Your task to perform on an android device: Show me the alarms in the clock app Image 0: 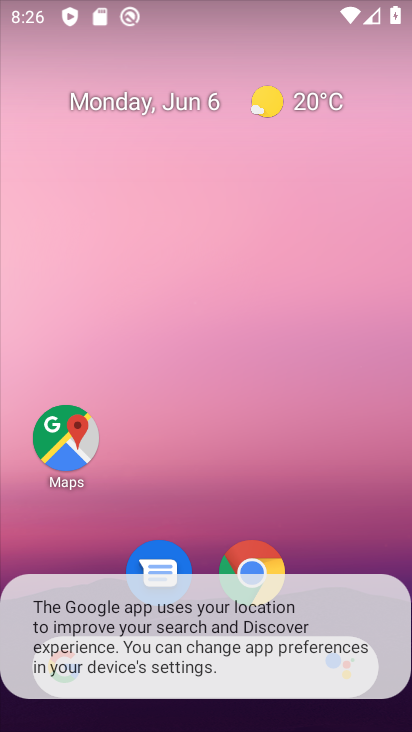
Step 0: drag from (315, 718) to (155, 136)
Your task to perform on an android device: Show me the alarms in the clock app Image 1: 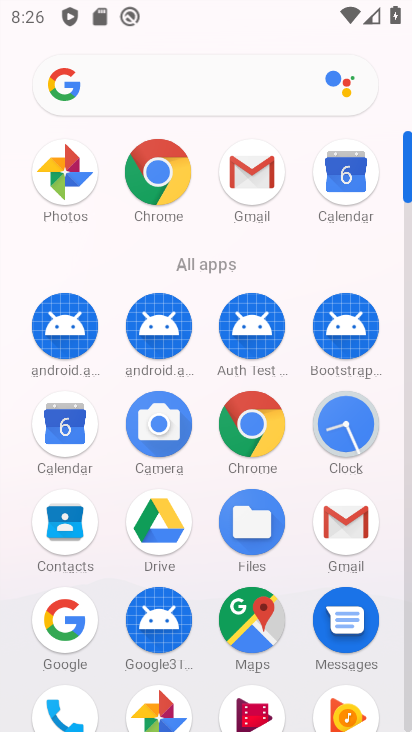
Step 1: click (345, 418)
Your task to perform on an android device: Show me the alarms in the clock app Image 2: 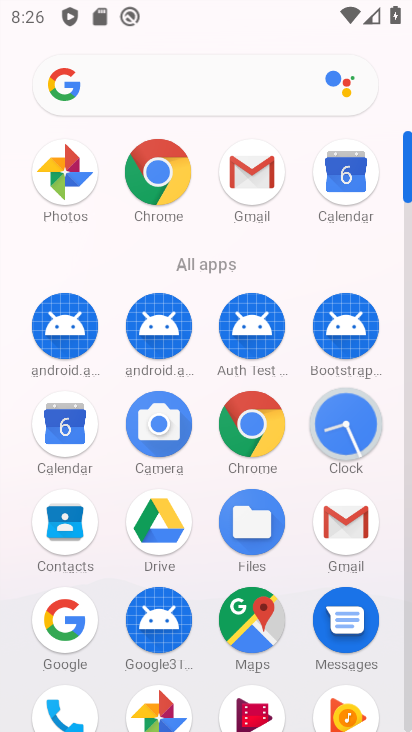
Step 2: click (345, 418)
Your task to perform on an android device: Show me the alarms in the clock app Image 3: 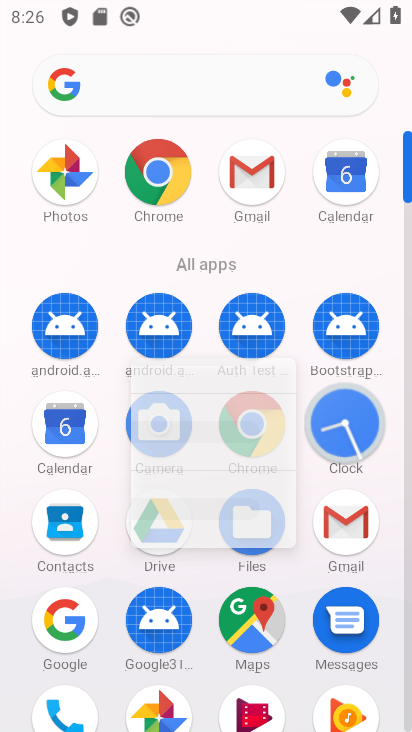
Step 3: click (344, 420)
Your task to perform on an android device: Show me the alarms in the clock app Image 4: 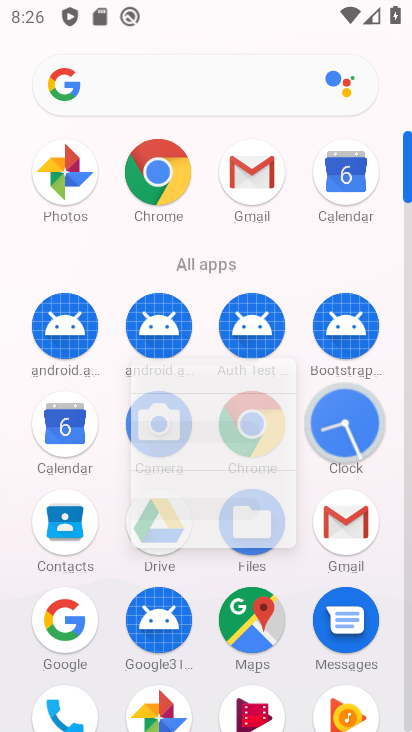
Step 4: click (343, 420)
Your task to perform on an android device: Show me the alarms in the clock app Image 5: 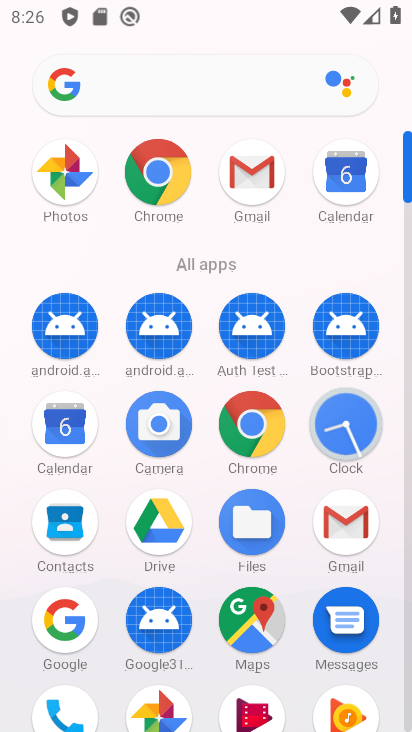
Step 5: click (343, 420)
Your task to perform on an android device: Show me the alarms in the clock app Image 6: 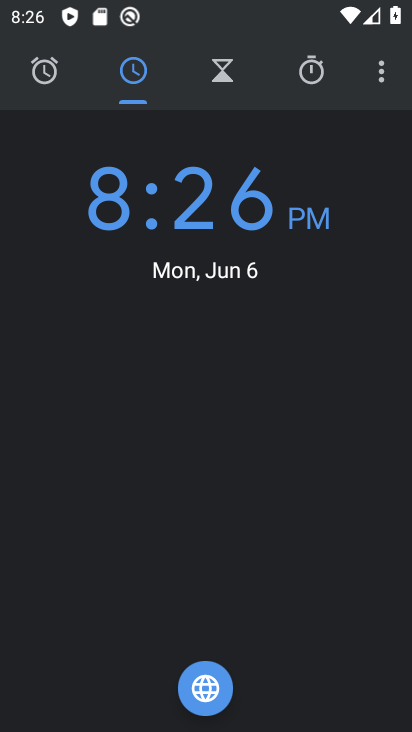
Step 6: click (48, 78)
Your task to perform on an android device: Show me the alarms in the clock app Image 7: 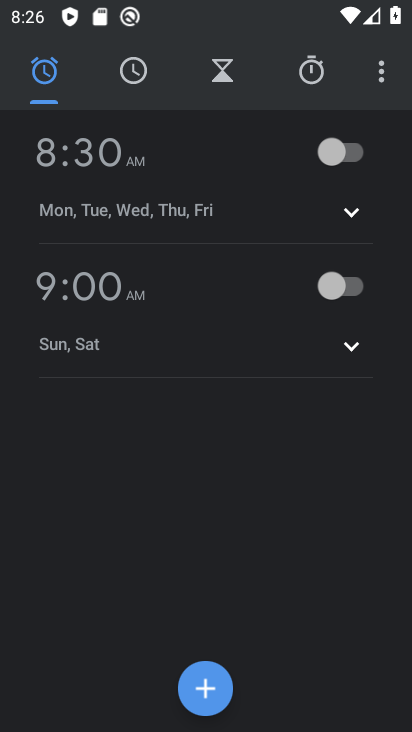
Step 7: click (329, 155)
Your task to perform on an android device: Show me the alarms in the clock app Image 8: 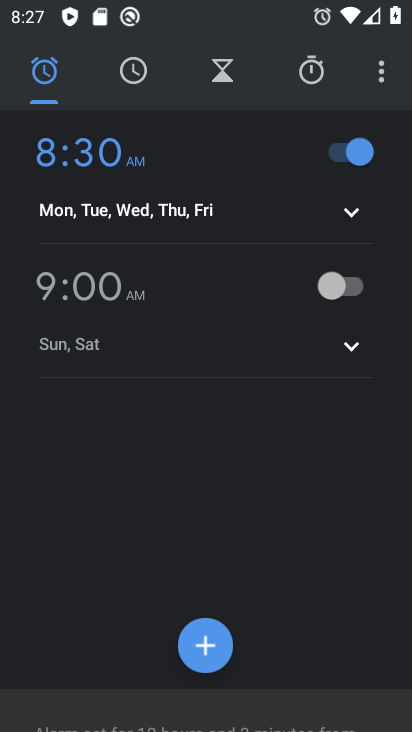
Step 8: click (354, 153)
Your task to perform on an android device: Show me the alarms in the clock app Image 9: 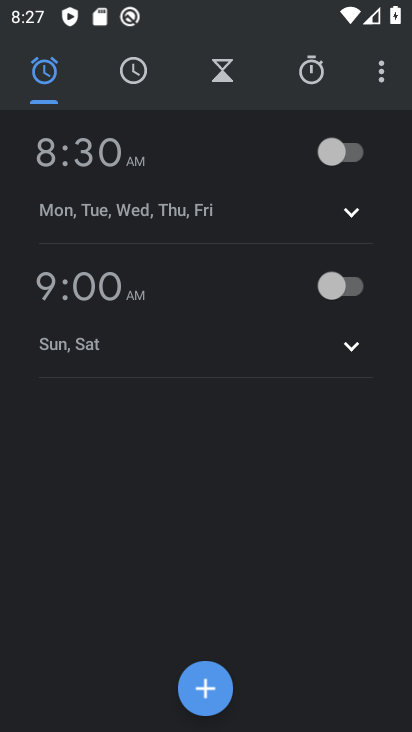
Step 9: task complete